Your task to perform on an android device: change the clock style Image 0: 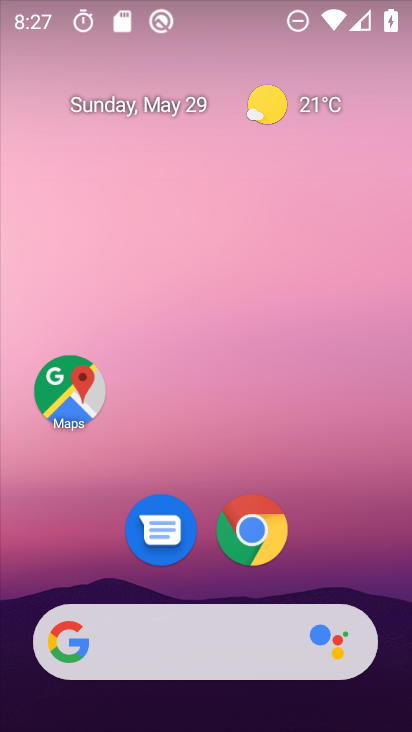
Step 0: drag from (207, 595) to (230, 280)
Your task to perform on an android device: change the clock style Image 1: 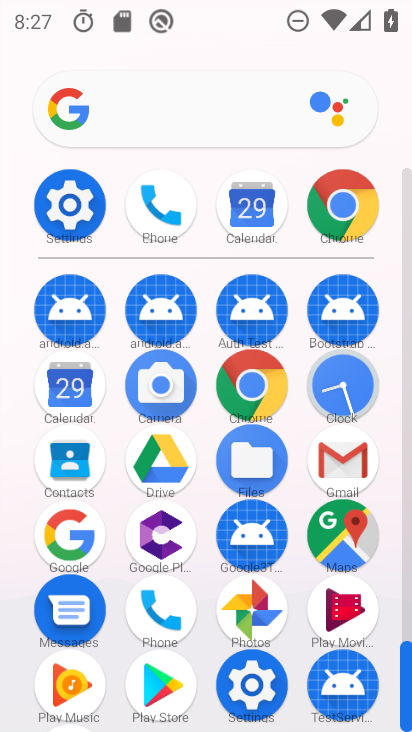
Step 1: click (350, 381)
Your task to perform on an android device: change the clock style Image 2: 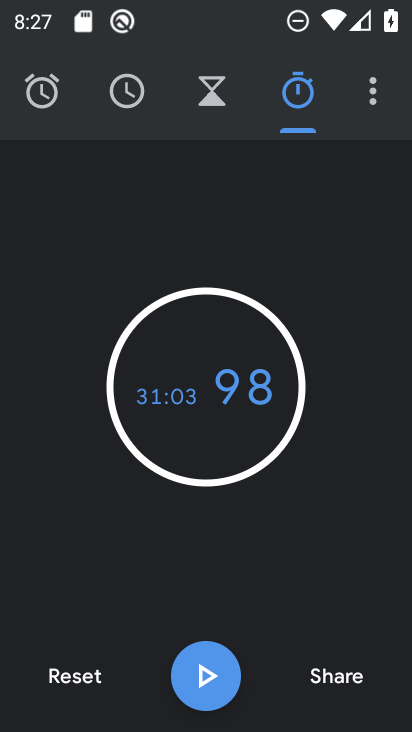
Step 2: click (374, 93)
Your task to perform on an android device: change the clock style Image 3: 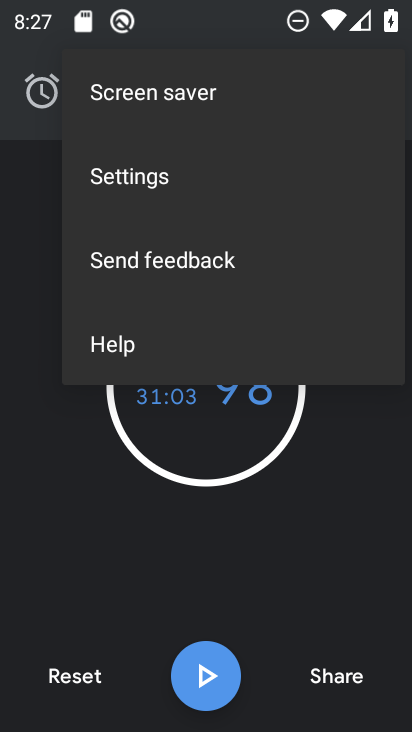
Step 3: click (125, 171)
Your task to perform on an android device: change the clock style Image 4: 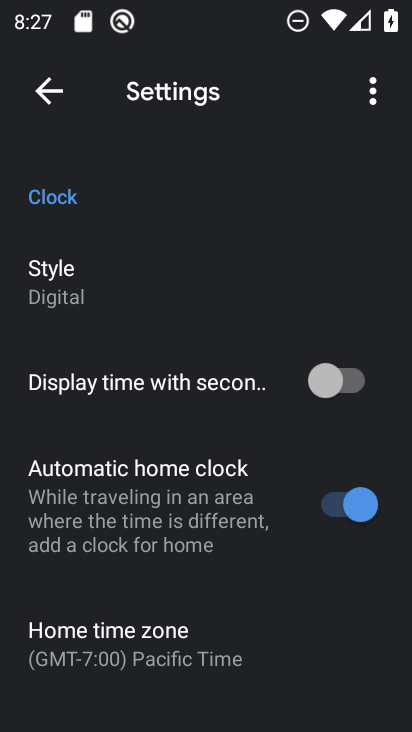
Step 4: click (75, 295)
Your task to perform on an android device: change the clock style Image 5: 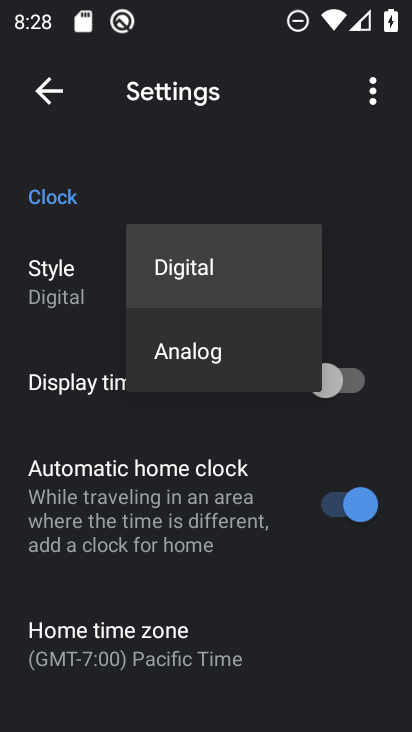
Step 5: click (164, 343)
Your task to perform on an android device: change the clock style Image 6: 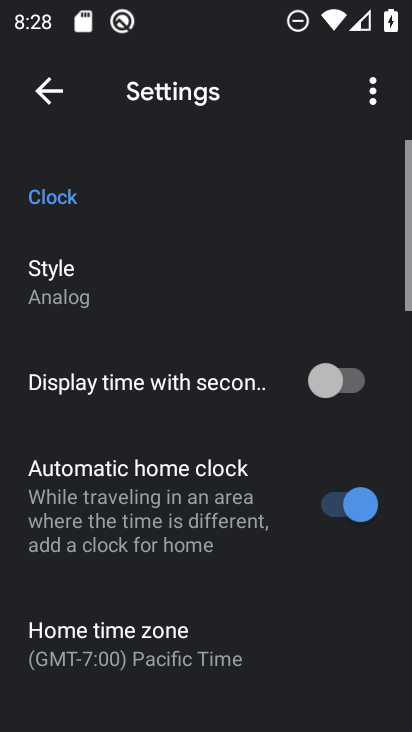
Step 6: task complete